Your task to perform on an android device: toggle notifications settings in the gmail app Image 0: 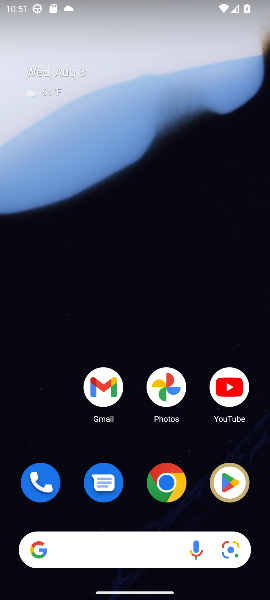
Step 0: drag from (136, 524) to (108, 148)
Your task to perform on an android device: toggle notifications settings in the gmail app Image 1: 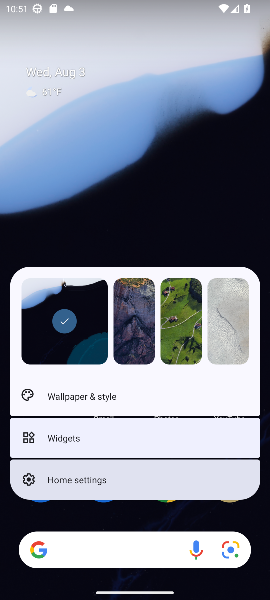
Step 1: click (108, 148)
Your task to perform on an android device: toggle notifications settings in the gmail app Image 2: 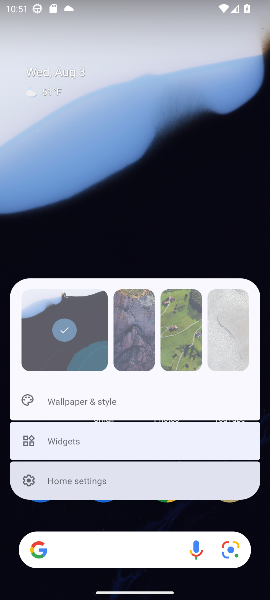
Step 2: click (108, 148)
Your task to perform on an android device: toggle notifications settings in the gmail app Image 3: 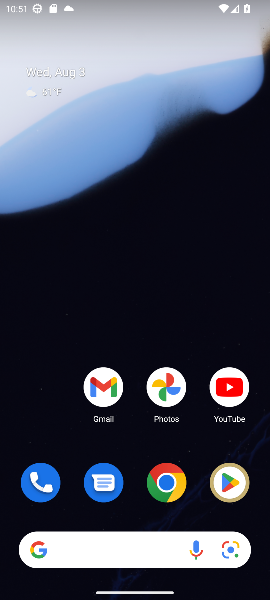
Step 3: drag from (134, 517) to (88, 58)
Your task to perform on an android device: toggle notifications settings in the gmail app Image 4: 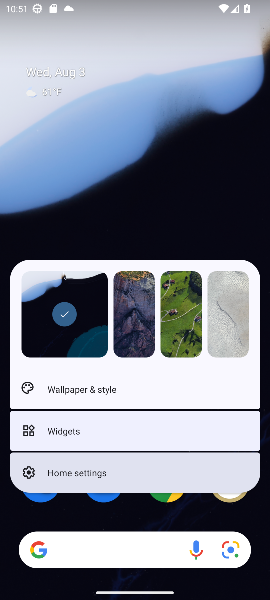
Step 4: click (88, 58)
Your task to perform on an android device: toggle notifications settings in the gmail app Image 5: 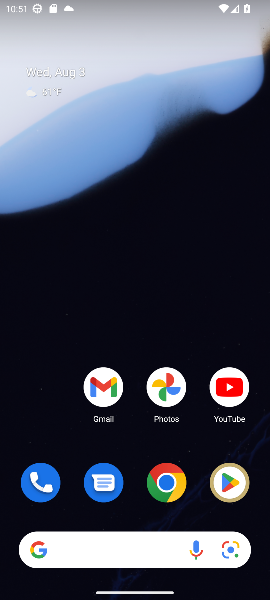
Step 5: drag from (128, 518) to (102, 49)
Your task to perform on an android device: toggle notifications settings in the gmail app Image 6: 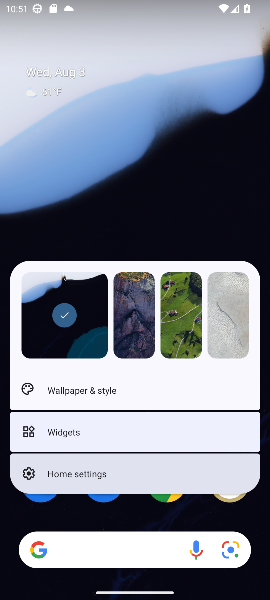
Step 6: click (102, 49)
Your task to perform on an android device: toggle notifications settings in the gmail app Image 7: 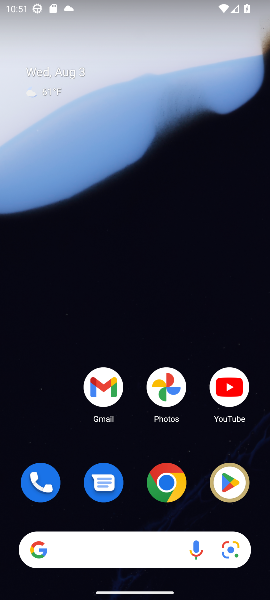
Step 7: drag from (141, 529) to (106, 168)
Your task to perform on an android device: toggle notifications settings in the gmail app Image 8: 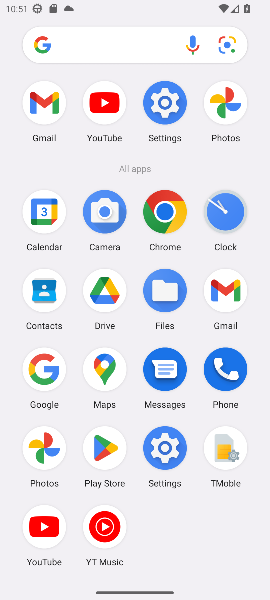
Step 8: click (163, 123)
Your task to perform on an android device: toggle notifications settings in the gmail app Image 9: 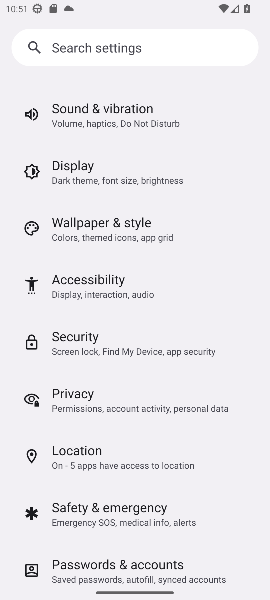
Step 9: task complete